Your task to perform on an android device: Open Google Maps Image 0: 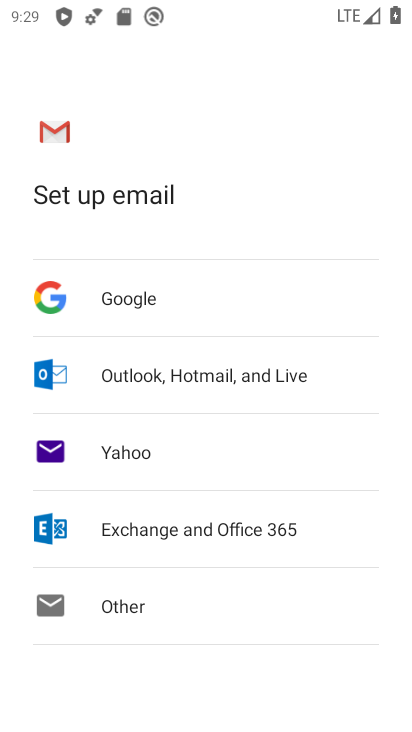
Step 0: press home button
Your task to perform on an android device: Open Google Maps Image 1: 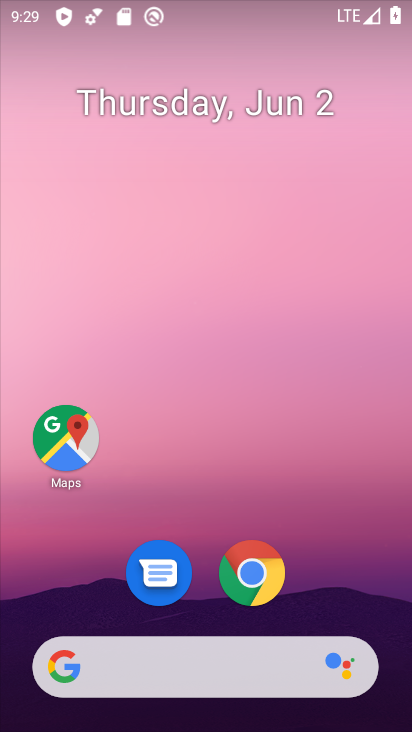
Step 1: click (74, 434)
Your task to perform on an android device: Open Google Maps Image 2: 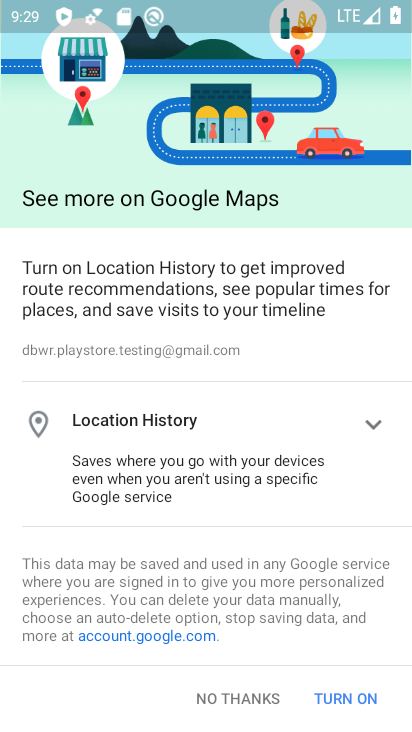
Step 2: click (217, 694)
Your task to perform on an android device: Open Google Maps Image 3: 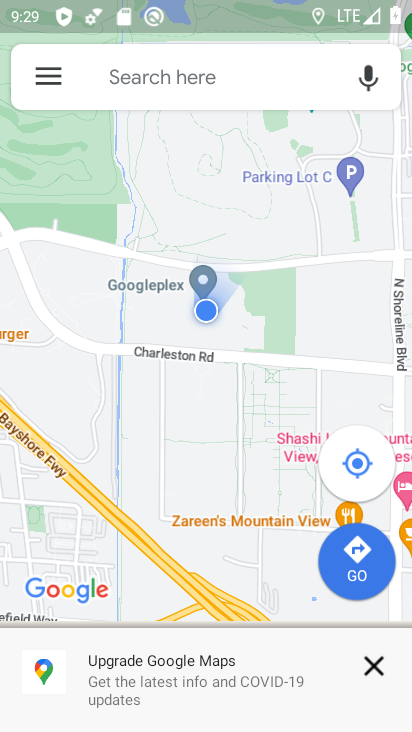
Step 3: task complete